Your task to perform on an android device: Open the map Image 0: 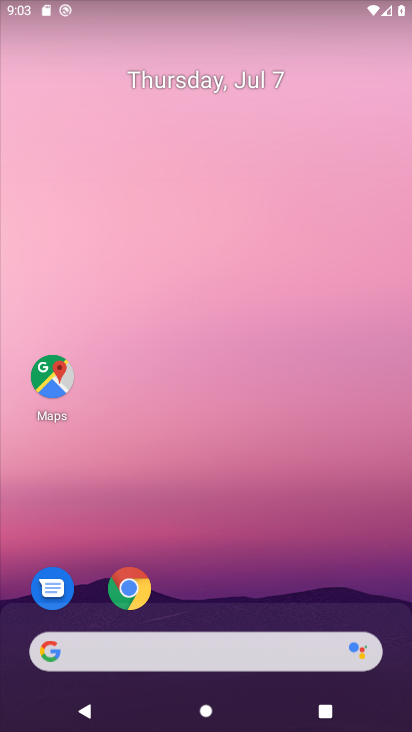
Step 0: drag from (251, 504) to (175, 15)
Your task to perform on an android device: Open the map Image 1: 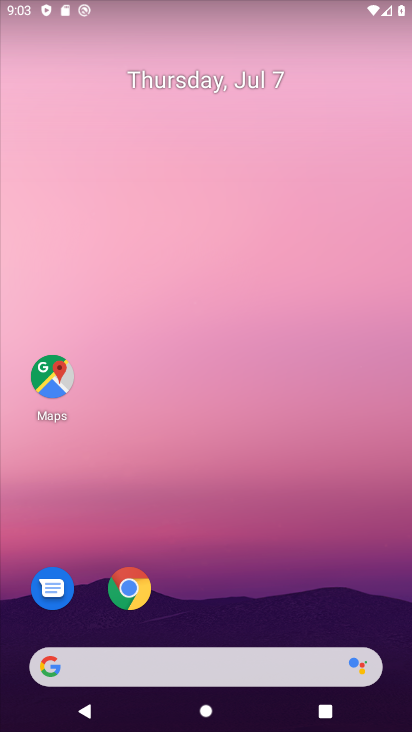
Step 1: drag from (183, 594) to (143, 95)
Your task to perform on an android device: Open the map Image 2: 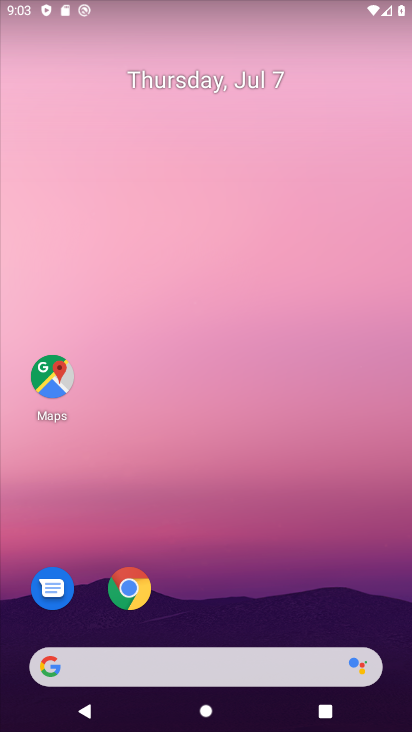
Step 2: drag from (209, 361) to (153, 164)
Your task to perform on an android device: Open the map Image 3: 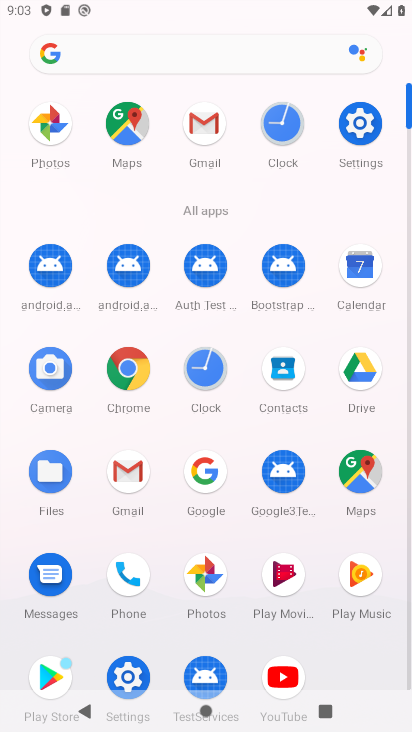
Step 3: click (134, 123)
Your task to perform on an android device: Open the map Image 4: 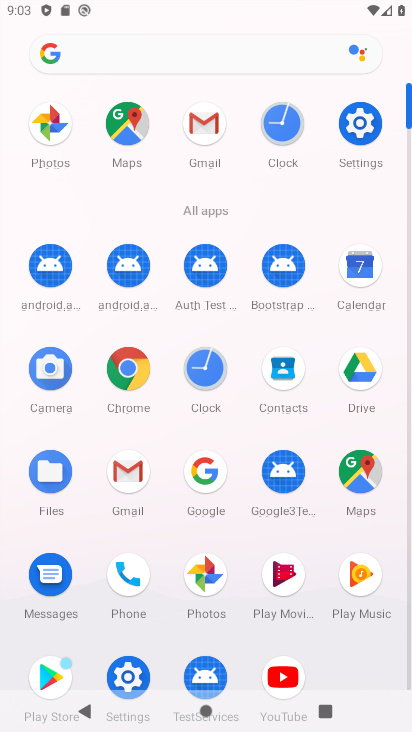
Step 4: click (131, 124)
Your task to perform on an android device: Open the map Image 5: 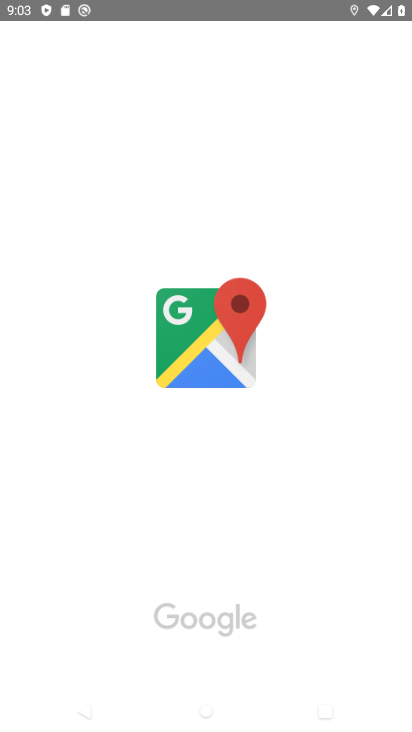
Step 5: task complete